Your task to perform on an android device: Open Wikipedia Image 0: 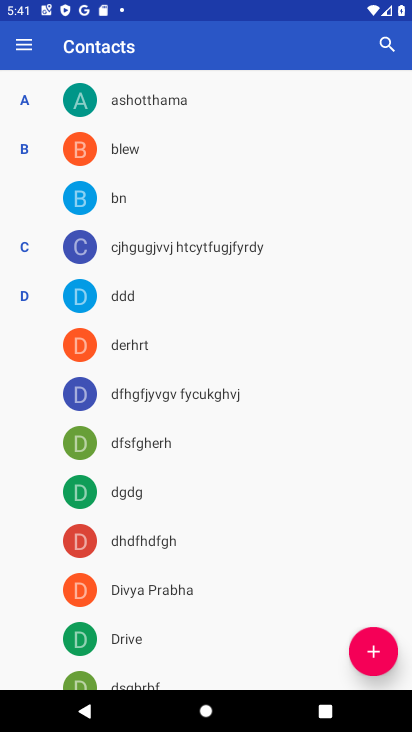
Step 0: press home button
Your task to perform on an android device: Open Wikipedia Image 1: 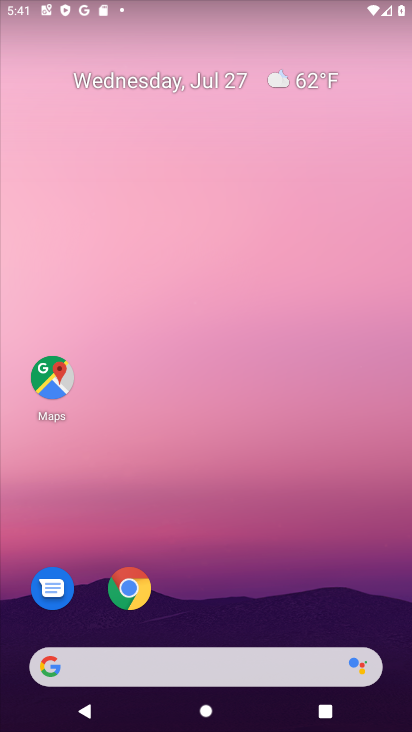
Step 1: click (129, 590)
Your task to perform on an android device: Open Wikipedia Image 2: 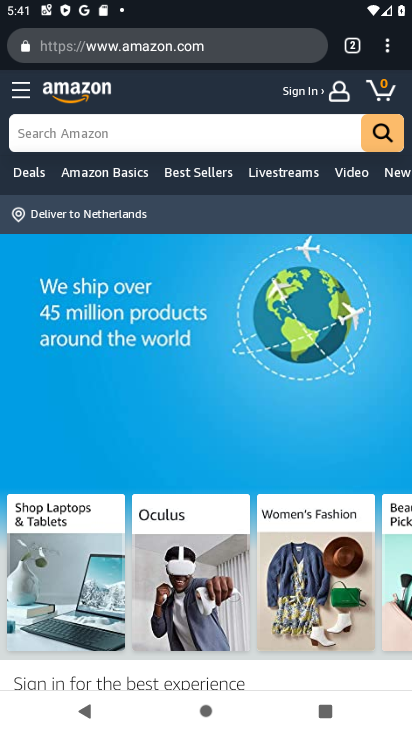
Step 2: click (346, 45)
Your task to perform on an android device: Open Wikipedia Image 3: 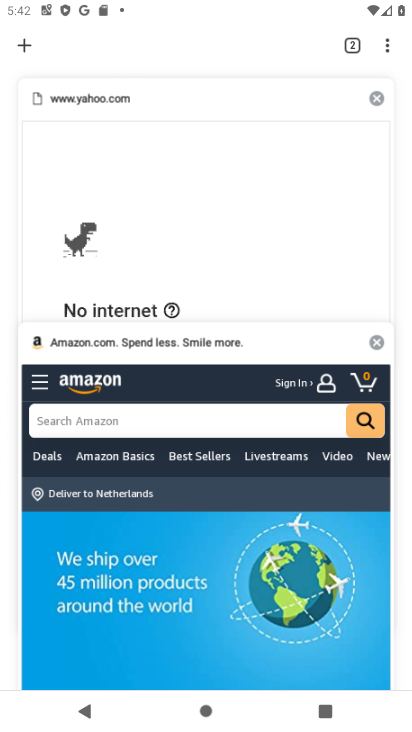
Step 3: click (15, 51)
Your task to perform on an android device: Open Wikipedia Image 4: 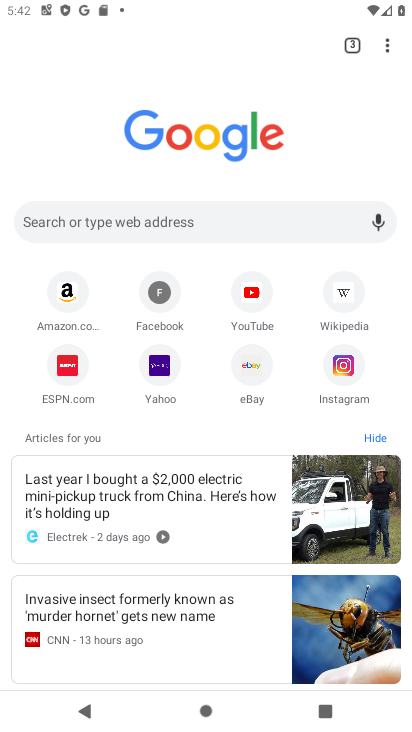
Step 4: click (334, 297)
Your task to perform on an android device: Open Wikipedia Image 5: 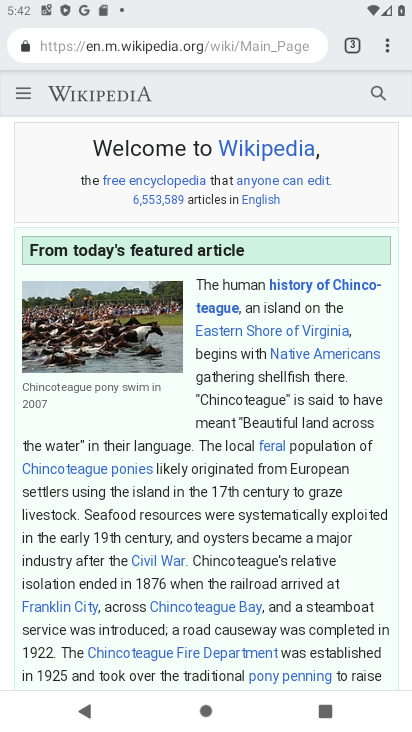
Step 5: task complete